Your task to perform on an android device: Open Google Chrome and click the shortcut for Amazon.com Image 0: 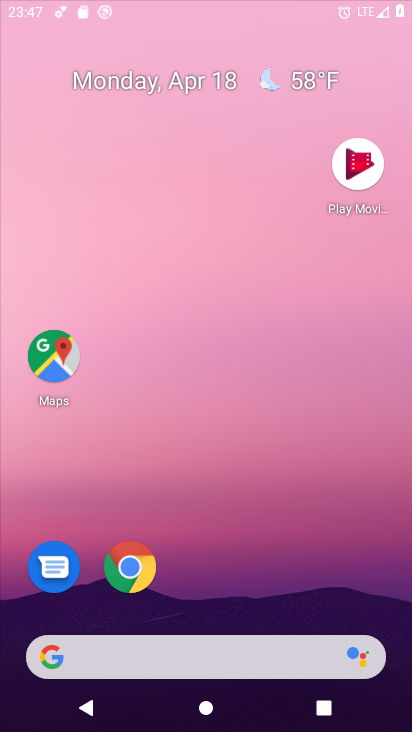
Step 0: click (199, 84)
Your task to perform on an android device: Open Google Chrome and click the shortcut for Amazon.com Image 1: 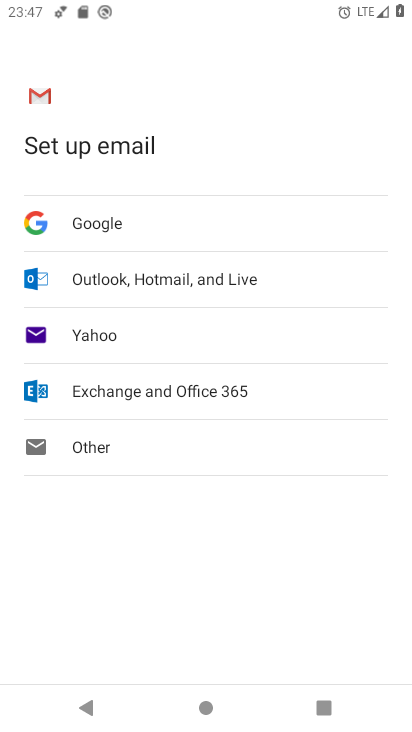
Step 1: press home button
Your task to perform on an android device: Open Google Chrome and click the shortcut for Amazon.com Image 2: 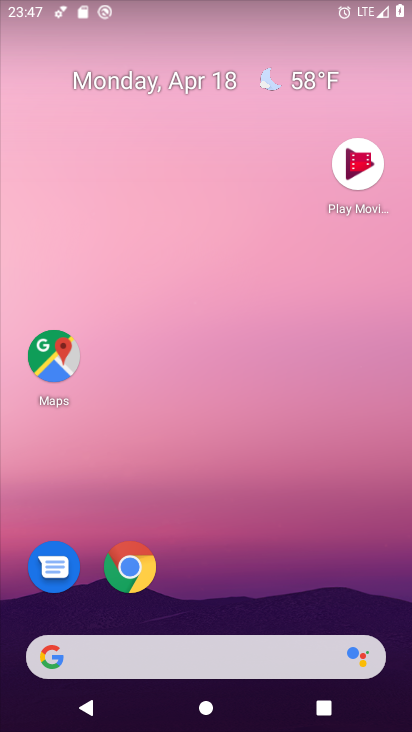
Step 2: click (119, 562)
Your task to perform on an android device: Open Google Chrome and click the shortcut for Amazon.com Image 3: 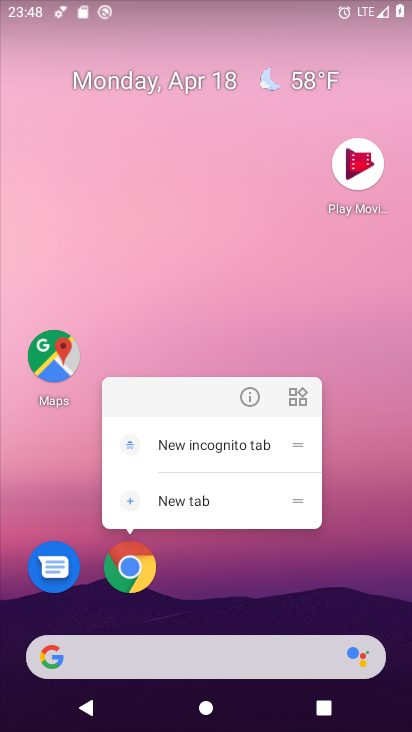
Step 3: click (244, 398)
Your task to perform on an android device: Open Google Chrome and click the shortcut for Amazon.com Image 4: 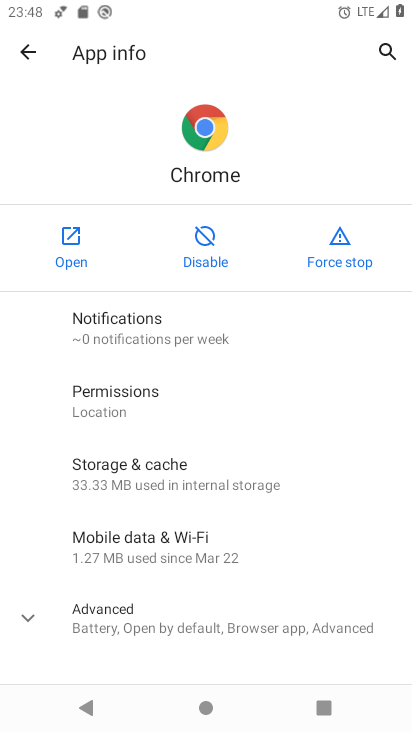
Step 4: click (68, 239)
Your task to perform on an android device: Open Google Chrome and click the shortcut for Amazon.com Image 5: 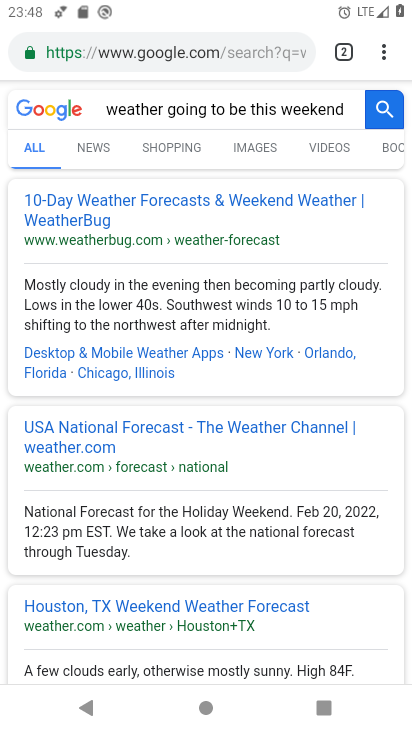
Step 5: click (349, 51)
Your task to perform on an android device: Open Google Chrome and click the shortcut for Amazon.com Image 6: 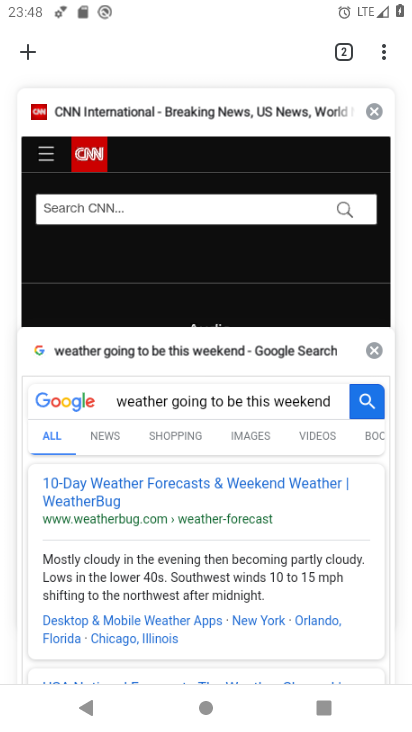
Step 6: click (377, 353)
Your task to perform on an android device: Open Google Chrome and click the shortcut for Amazon.com Image 7: 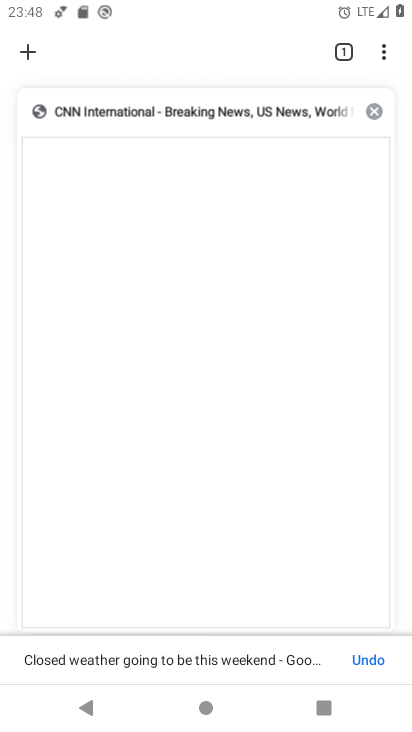
Step 7: click (30, 47)
Your task to perform on an android device: Open Google Chrome and click the shortcut for Amazon.com Image 8: 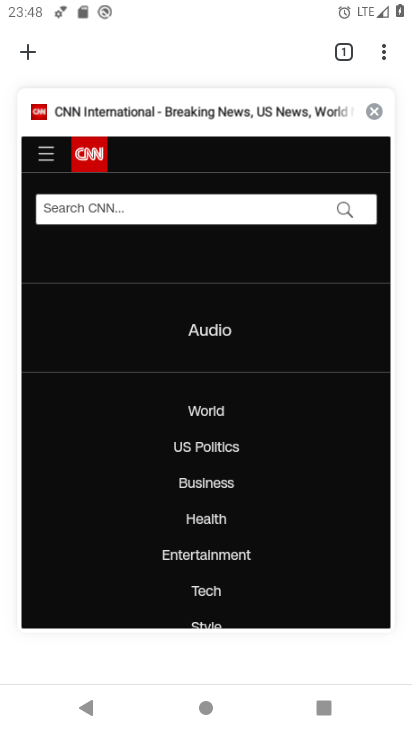
Step 8: click (20, 47)
Your task to perform on an android device: Open Google Chrome and click the shortcut for Amazon.com Image 9: 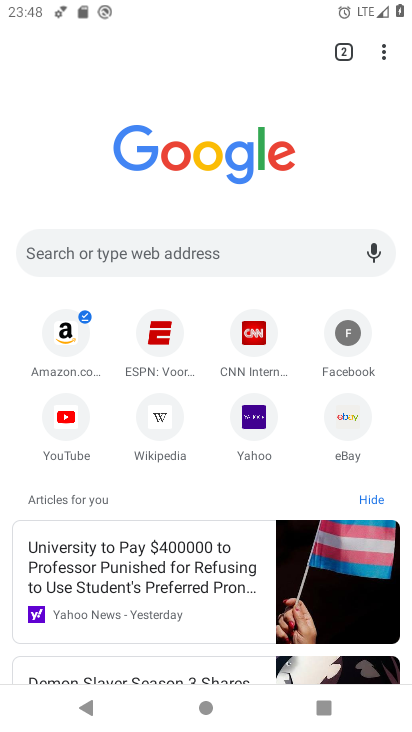
Step 9: click (63, 336)
Your task to perform on an android device: Open Google Chrome and click the shortcut for Amazon.com Image 10: 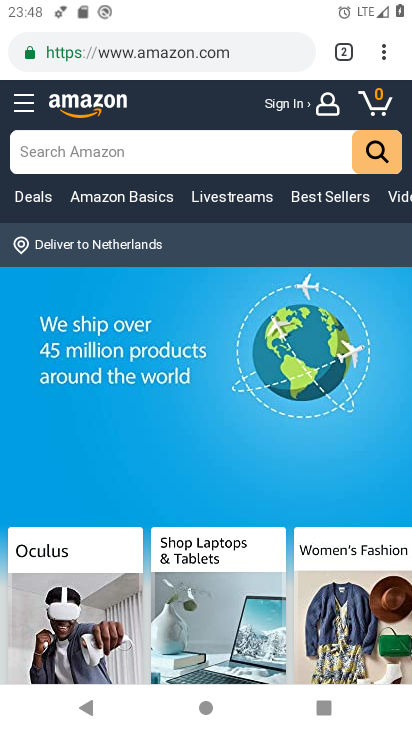
Step 10: task complete